Your task to perform on an android device: What's on my calendar today? Image 0: 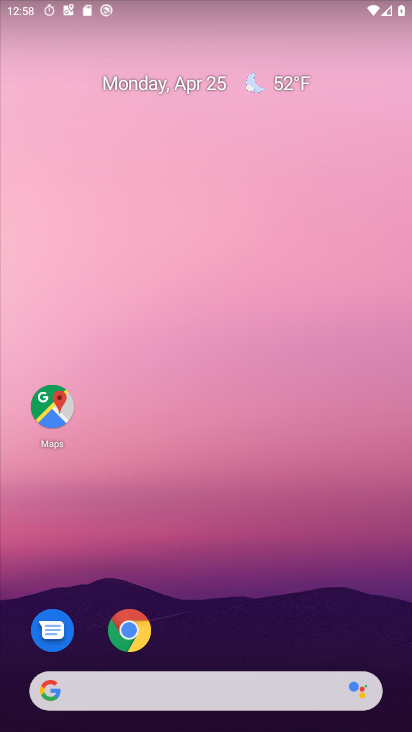
Step 0: drag from (174, 660) to (75, 2)
Your task to perform on an android device: What's on my calendar today? Image 1: 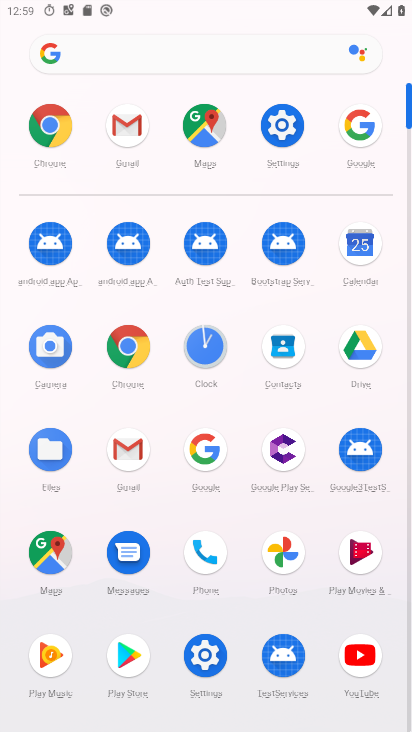
Step 1: click (362, 246)
Your task to perform on an android device: What's on my calendar today? Image 2: 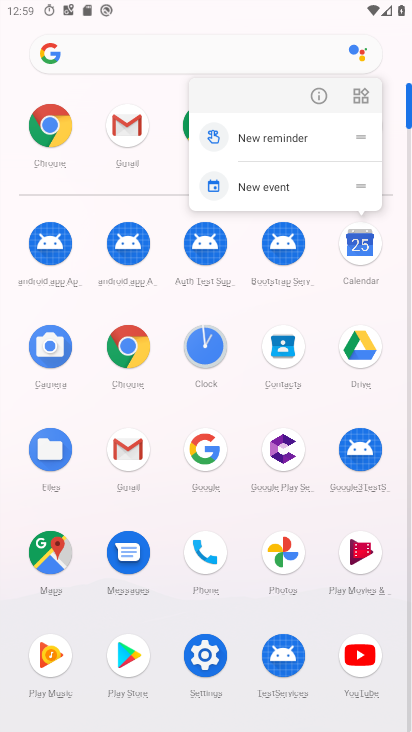
Step 2: click (317, 95)
Your task to perform on an android device: What's on my calendar today? Image 3: 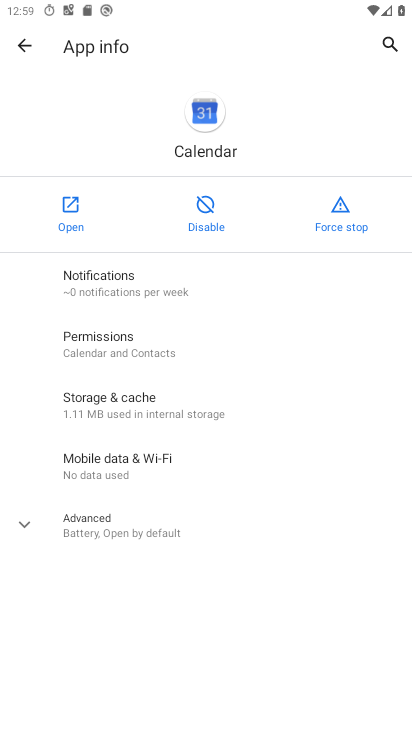
Step 3: click (67, 195)
Your task to perform on an android device: What's on my calendar today? Image 4: 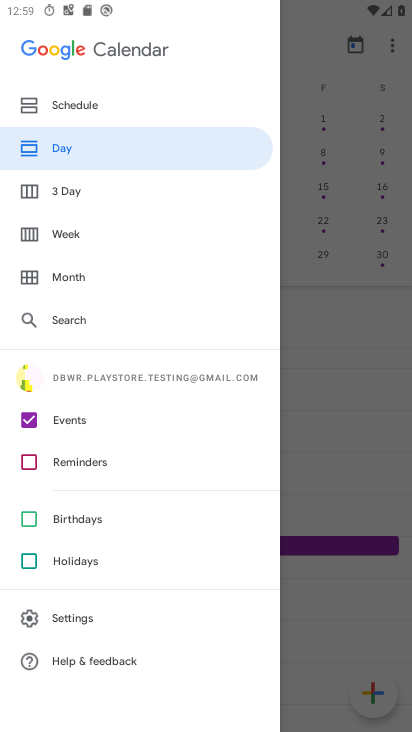
Step 4: click (133, 151)
Your task to perform on an android device: What's on my calendar today? Image 5: 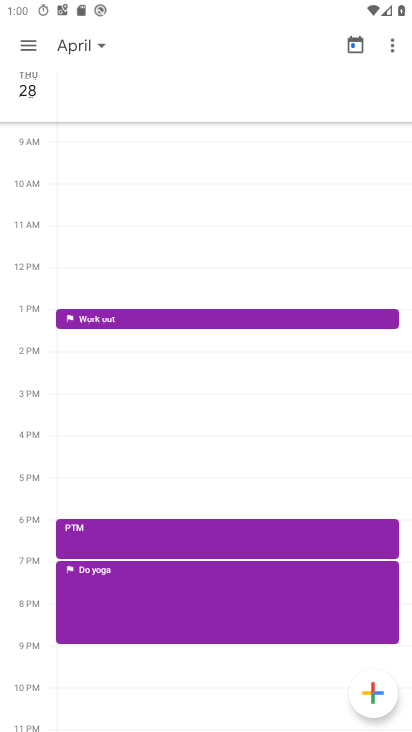
Step 5: task complete